Your task to perform on an android device: Open Chrome and go to settings Image 0: 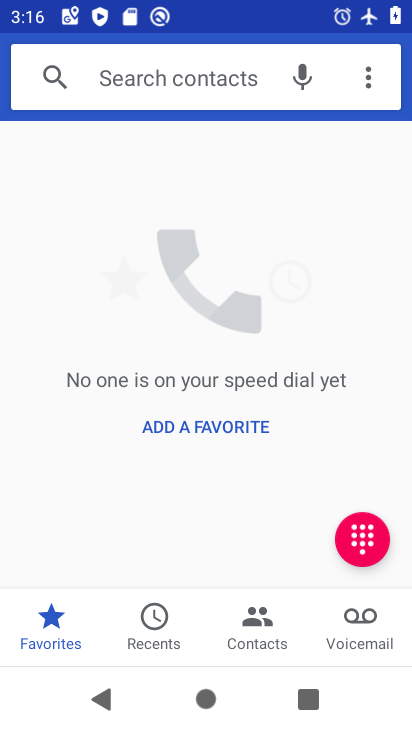
Step 0: press back button
Your task to perform on an android device: Open Chrome and go to settings Image 1: 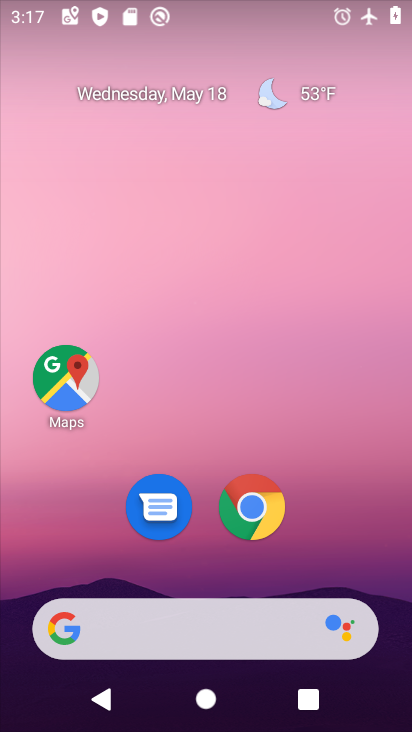
Step 1: click (251, 503)
Your task to perform on an android device: Open Chrome and go to settings Image 2: 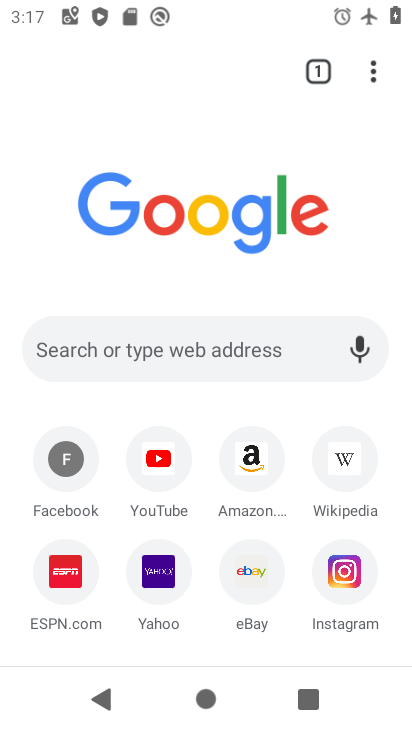
Step 2: click (374, 71)
Your task to perform on an android device: Open Chrome and go to settings Image 3: 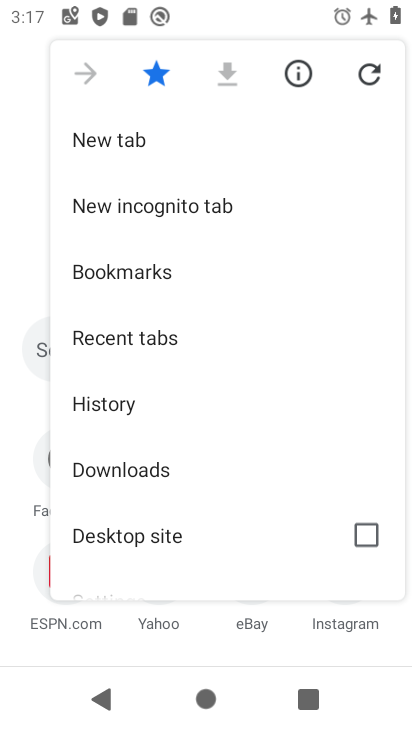
Step 3: drag from (163, 450) to (222, 364)
Your task to perform on an android device: Open Chrome and go to settings Image 4: 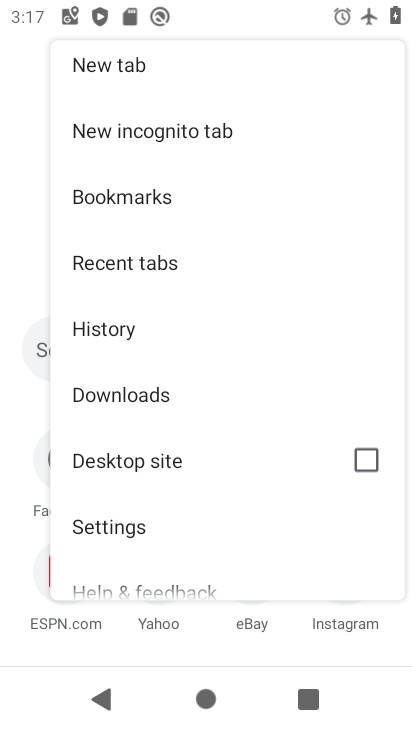
Step 4: click (114, 525)
Your task to perform on an android device: Open Chrome and go to settings Image 5: 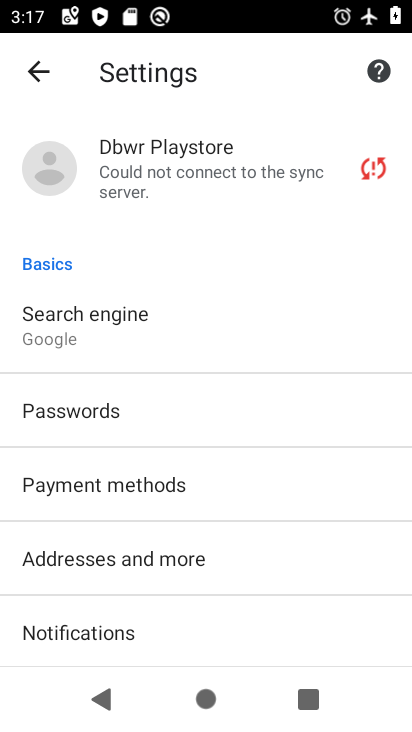
Step 5: task complete